Your task to perform on an android device: Turn on the flashlight Image 0: 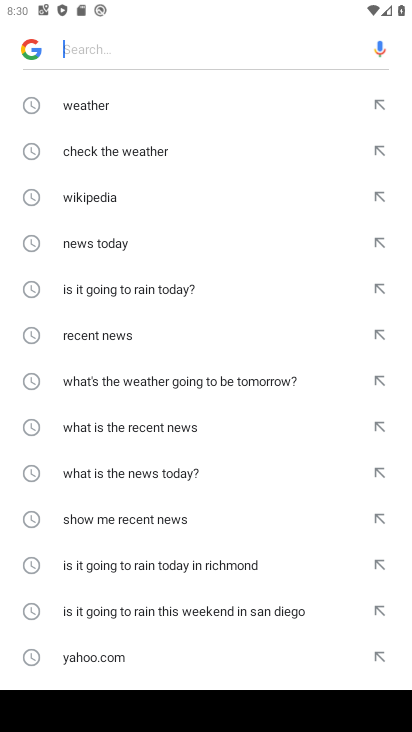
Step 0: press back button
Your task to perform on an android device: Turn on the flashlight Image 1: 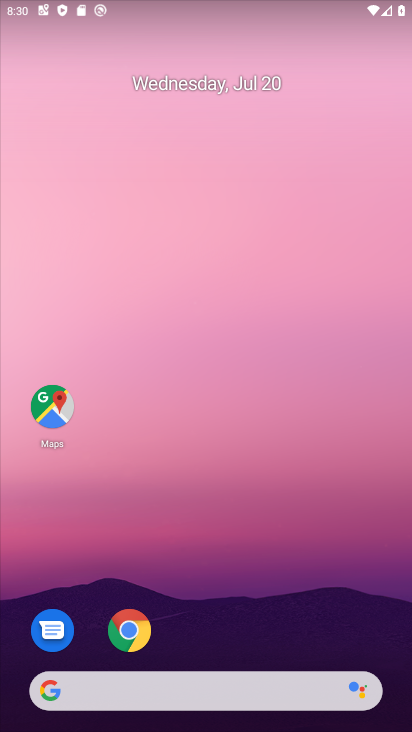
Step 1: drag from (390, 697) to (304, 114)
Your task to perform on an android device: Turn on the flashlight Image 2: 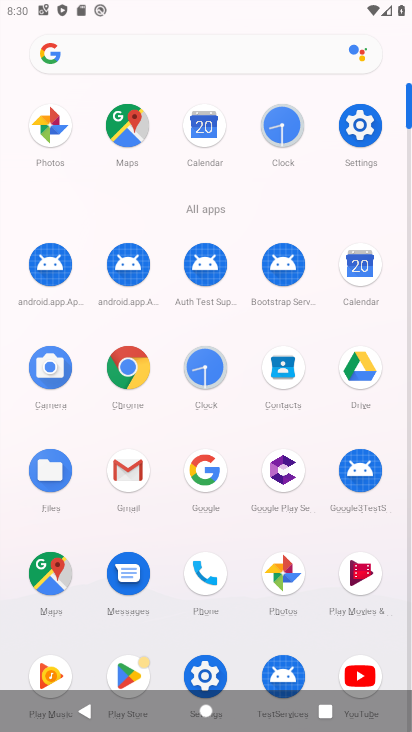
Step 2: click (369, 122)
Your task to perform on an android device: Turn on the flashlight Image 3: 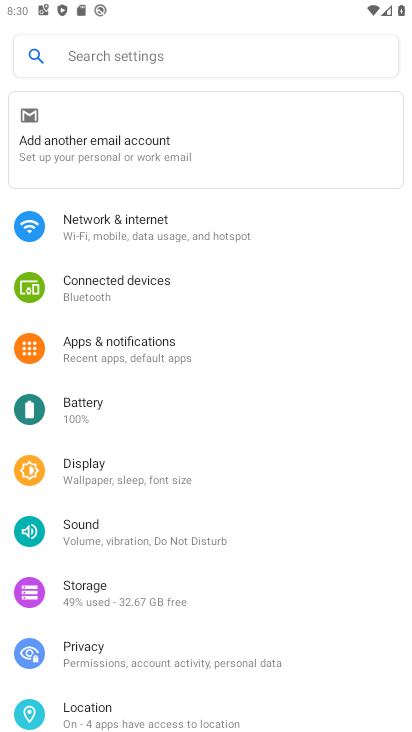
Step 3: click (87, 479)
Your task to perform on an android device: Turn on the flashlight Image 4: 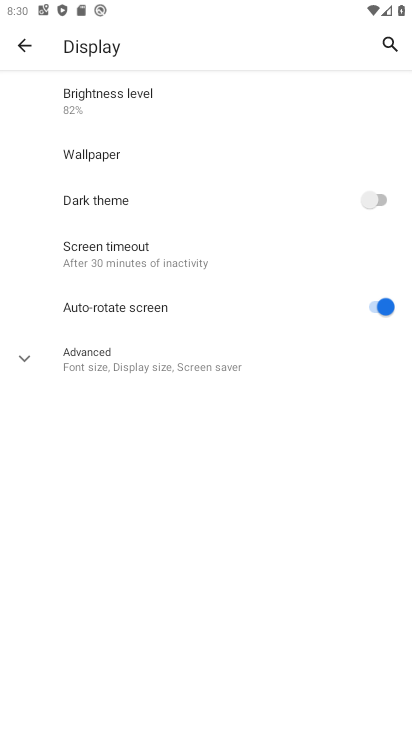
Step 4: task complete